Your task to perform on an android device: Is it going to rain tomorrow? Image 0: 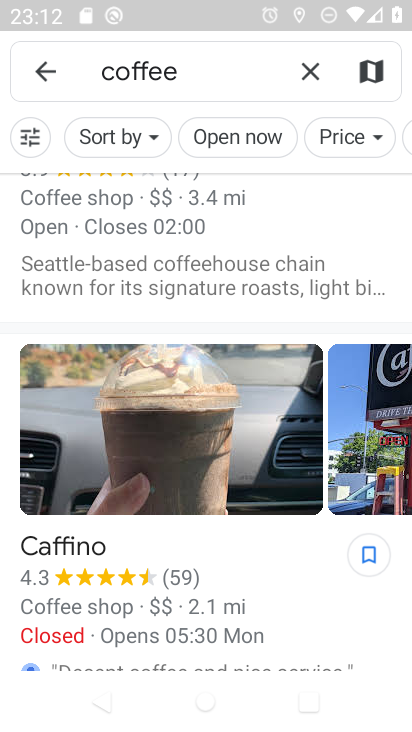
Step 0: press home button
Your task to perform on an android device: Is it going to rain tomorrow? Image 1: 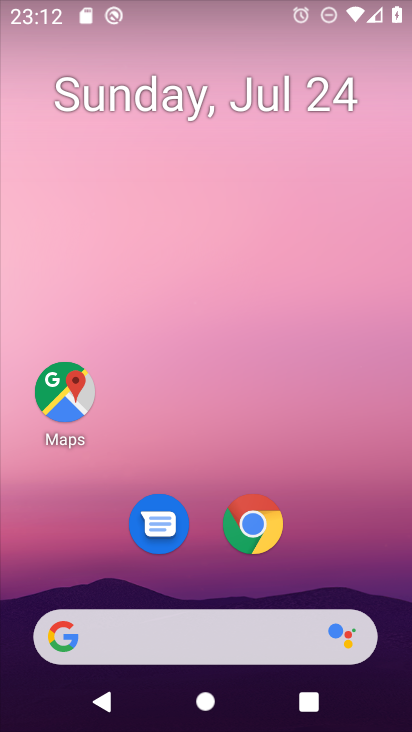
Step 1: click (174, 632)
Your task to perform on an android device: Is it going to rain tomorrow? Image 2: 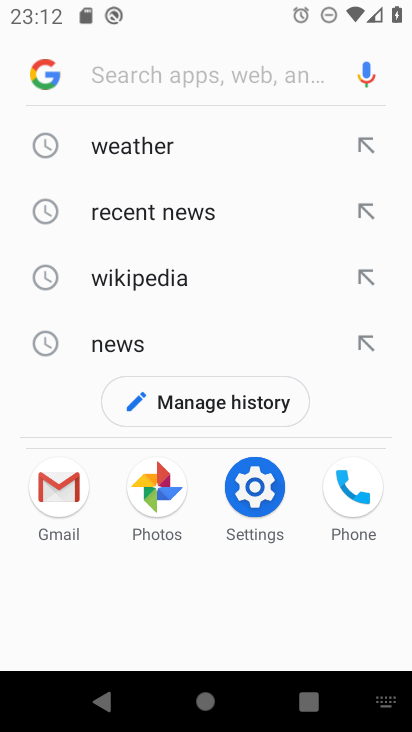
Step 2: click (152, 145)
Your task to perform on an android device: Is it going to rain tomorrow? Image 3: 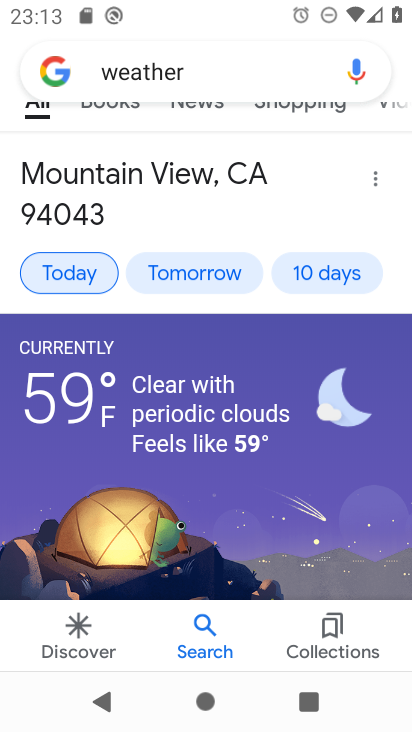
Step 3: task complete